Your task to perform on an android device: Search for seafood restaurants on Google Maps Image 0: 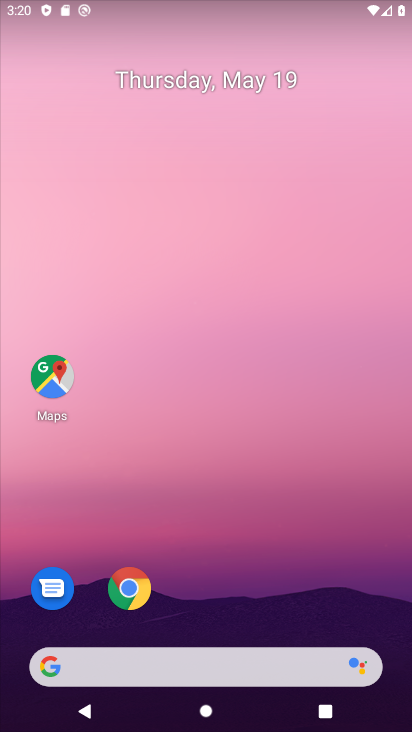
Step 0: click (39, 368)
Your task to perform on an android device: Search for seafood restaurants on Google Maps Image 1: 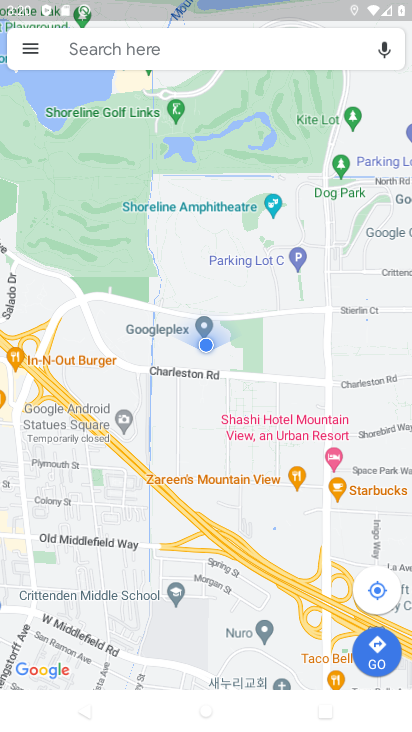
Step 1: click (184, 56)
Your task to perform on an android device: Search for seafood restaurants on Google Maps Image 2: 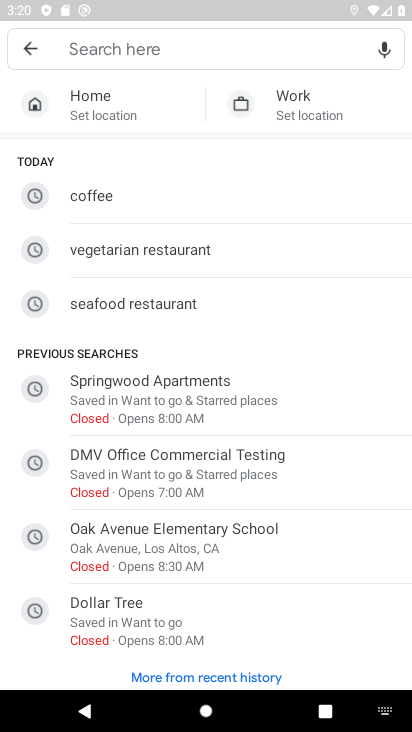
Step 2: click (257, 303)
Your task to perform on an android device: Search for seafood restaurants on Google Maps Image 3: 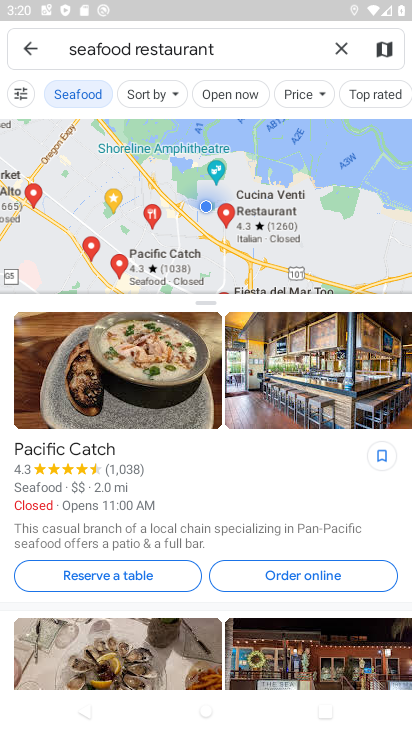
Step 3: task complete